Your task to perform on an android device: Open Yahoo.com Image 0: 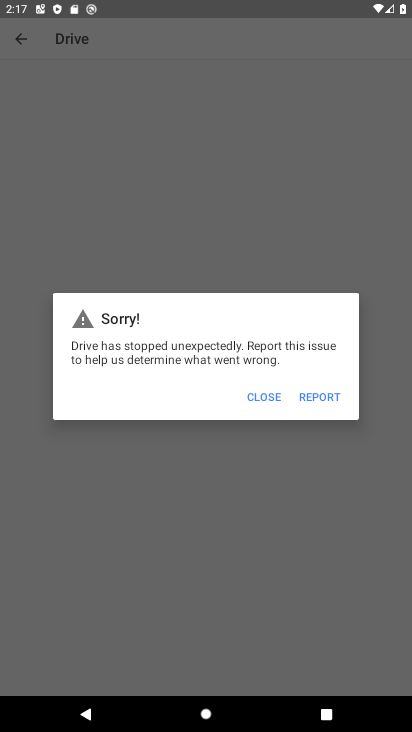
Step 0: press home button
Your task to perform on an android device: Open Yahoo.com Image 1: 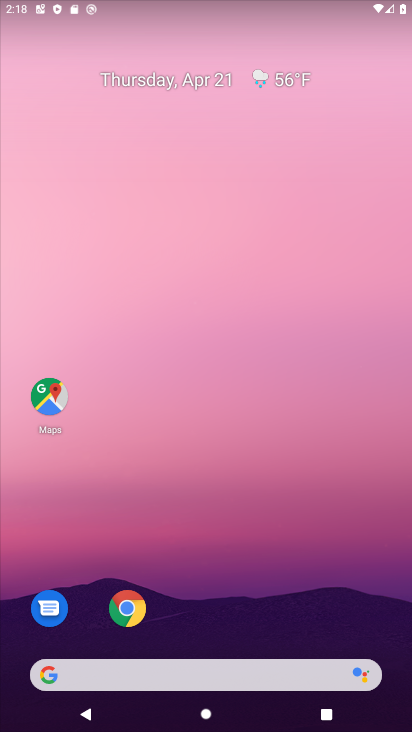
Step 1: click (124, 601)
Your task to perform on an android device: Open Yahoo.com Image 2: 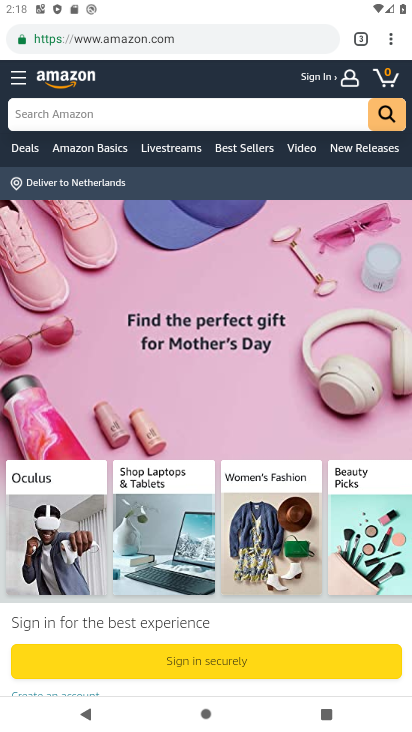
Step 2: click (365, 36)
Your task to perform on an android device: Open Yahoo.com Image 3: 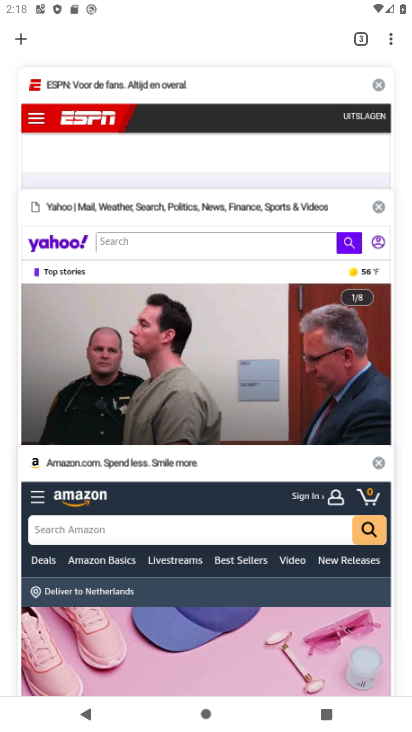
Step 3: click (147, 264)
Your task to perform on an android device: Open Yahoo.com Image 4: 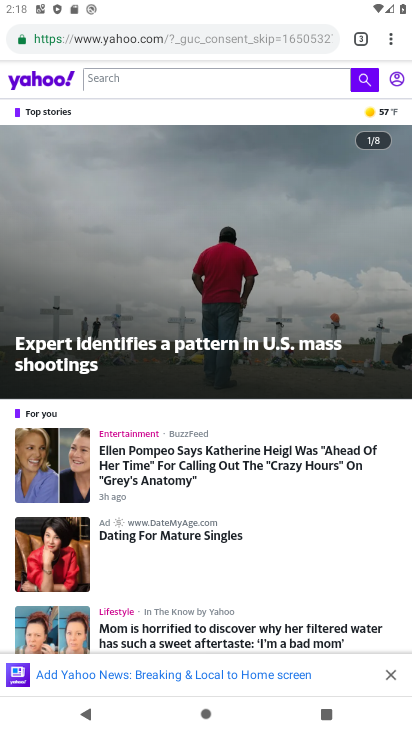
Step 4: task complete